Your task to perform on an android device: check google app version Image 0: 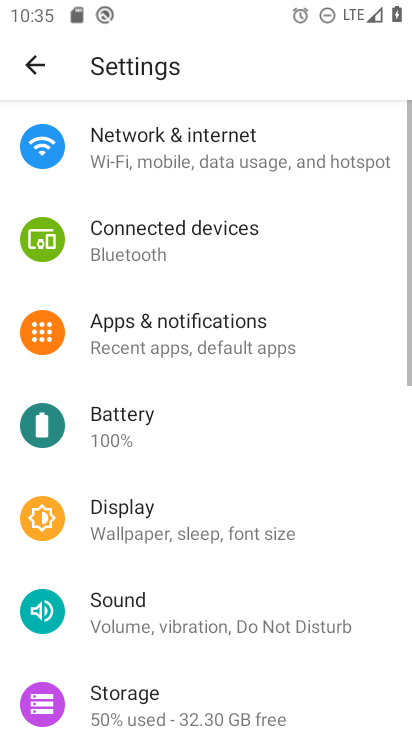
Step 0: press home button
Your task to perform on an android device: check google app version Image 1: 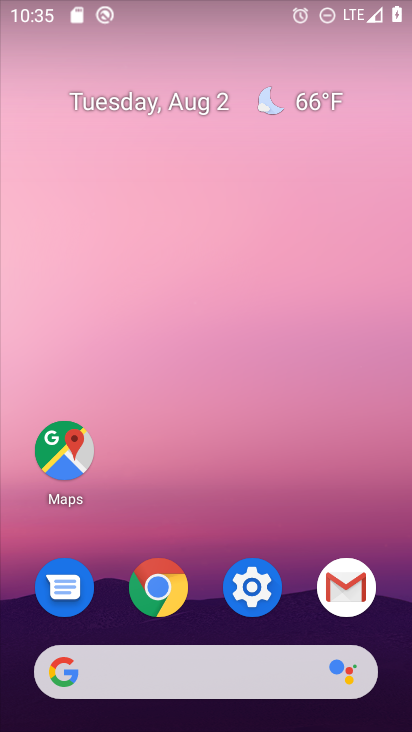
Step 1: click (149, 597)
Your task to perform on an android device: check google app version Image 2: 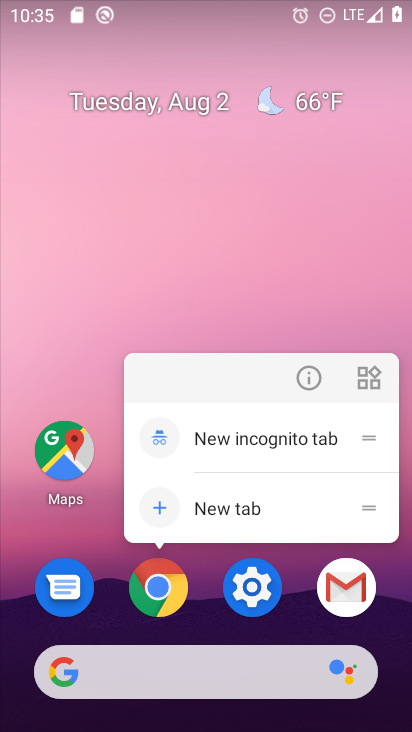
Step 2: click (149, 597)
Your task to perform on an android device: check google app version Image 3: 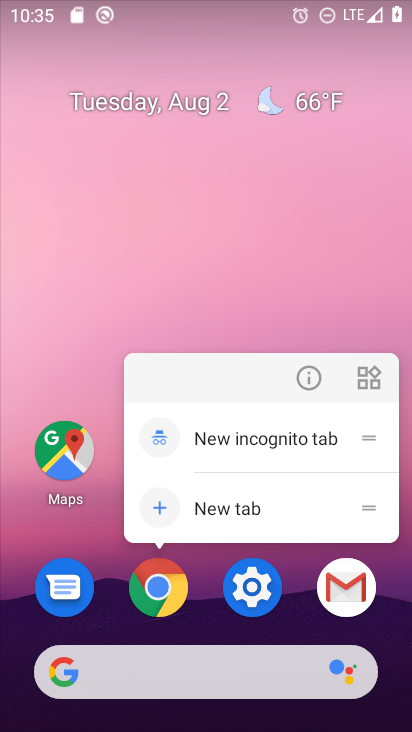
Step 3: click (167, 605)
Your task to perform on an android device: check google app version Image 4: 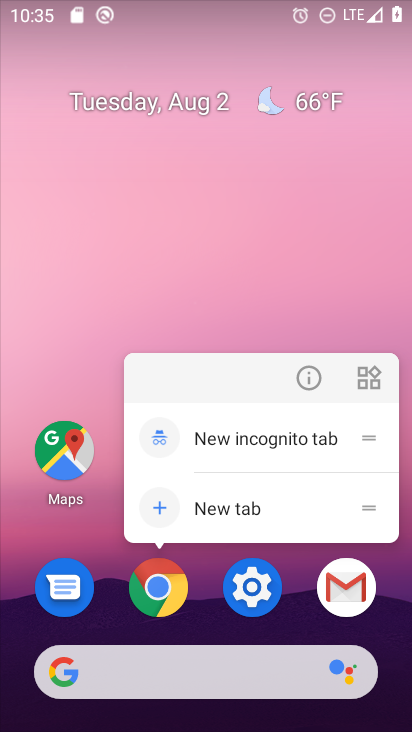
Step 4: click (168, 603)
Your task to perform on an android device: check google app version Image 5: 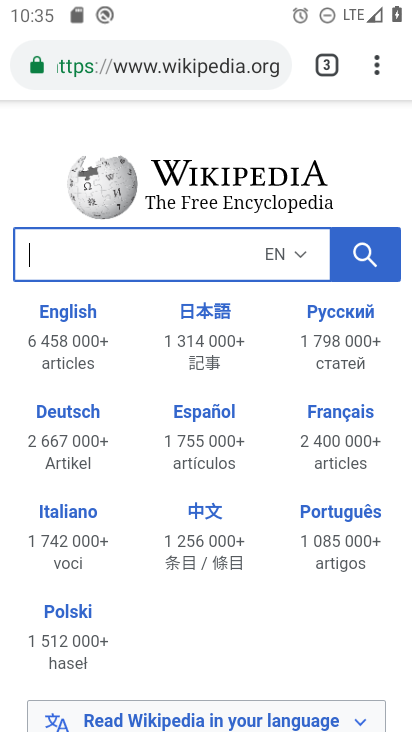
Step 5: click (379, 71)
Your task to perform on an android device: check google app version Image 6: 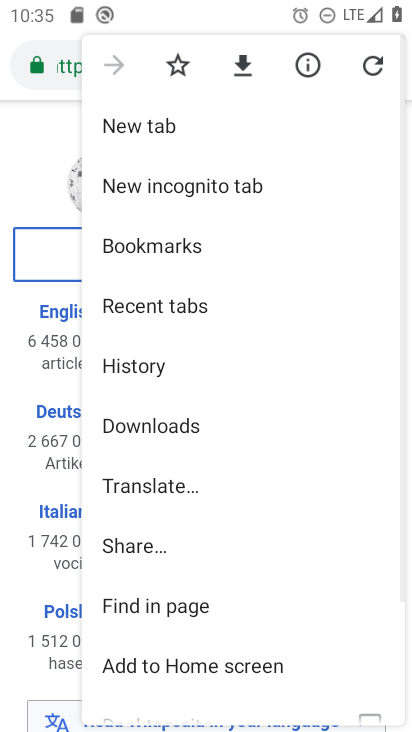
Step 6: drag from (226, 597) to (236, 183)
Your task to perform on an android device: check google app version Image 7: 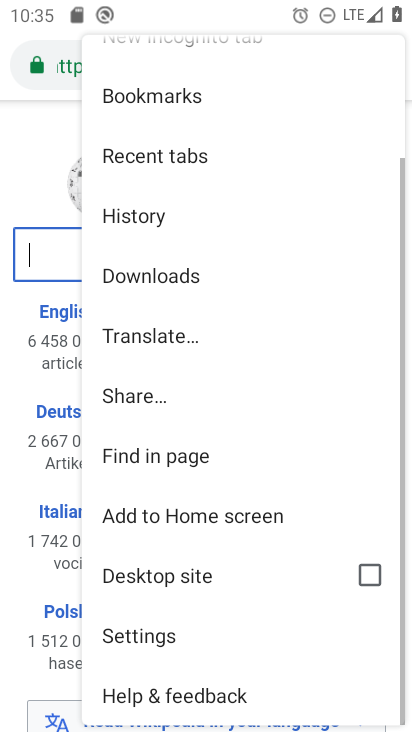
Step 7: click (158, 623)
Your task to perform on an android device: check google app version Image 8: 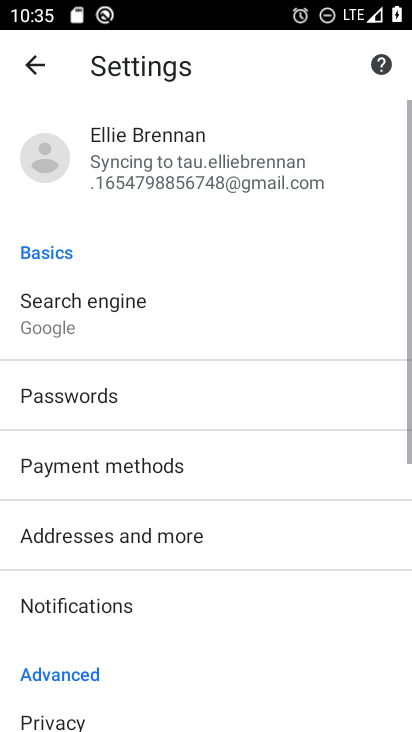
Step 8: drag from (75, 625) to (206, 214)
Your task to perform on an android device: check google app version Image 9: 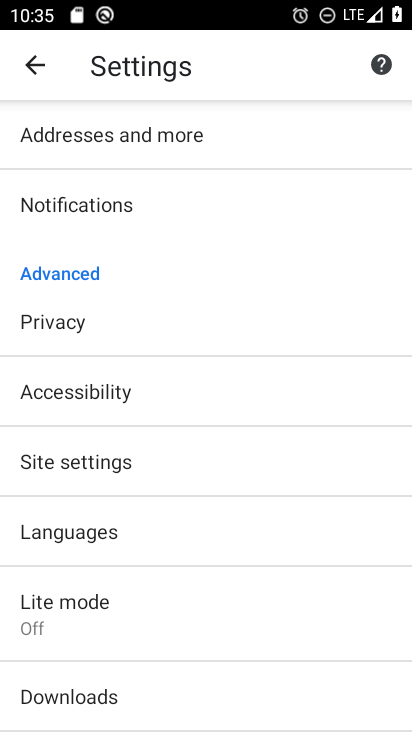
Step 9: drag from (73, 690) to (108, 435)
Your task to perform on an android device: check google app version Image 10: 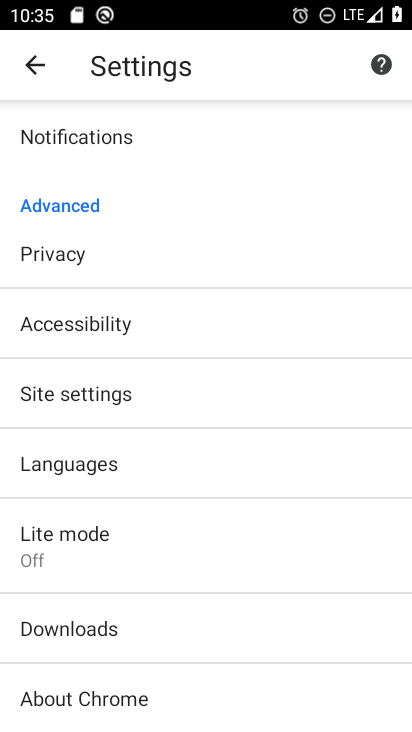
Step 10: click (69, 693)
Your task to perform on an android device: check google app version Image 11: 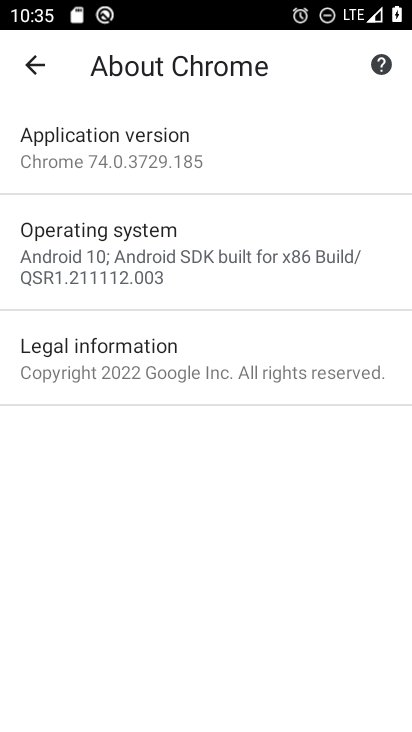
Step 11: click (79, 164)
Your task to perform on an android device: check google app version Image 12: 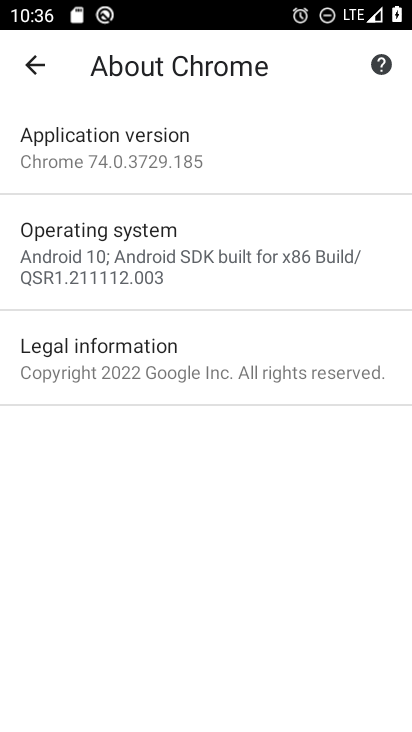
Step 12: task complete